Your task to perform on an android device: uninstall "Move to iOS" Image 0: 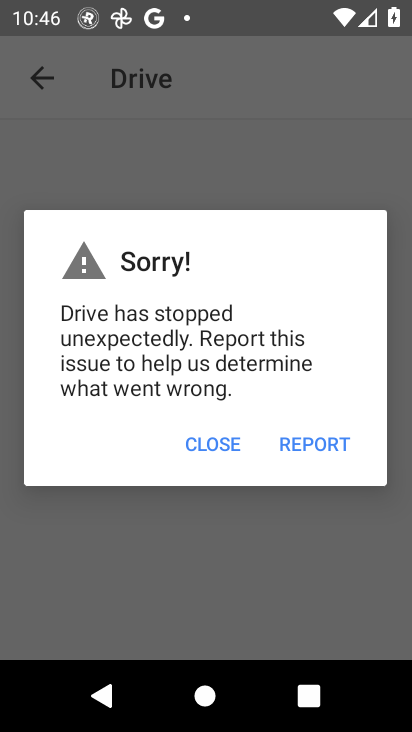
Step 0: click (223, 450)
Your task to perform on an android device: uninstall "Move to iOS" Image 1: 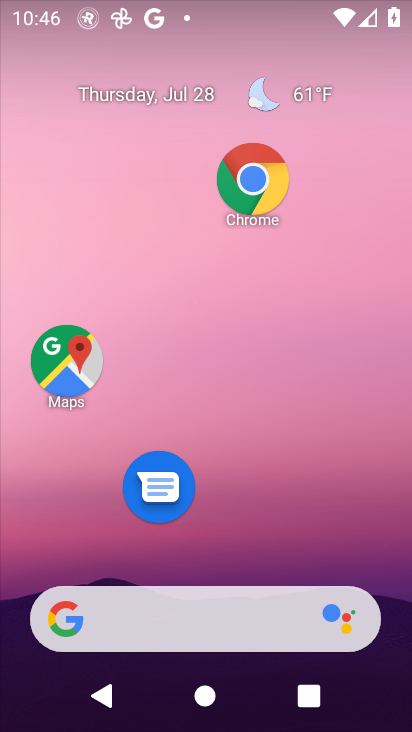
Step 1: press back button
Your task to perform on an android device: uninstall "Move to iOS" Image 2: 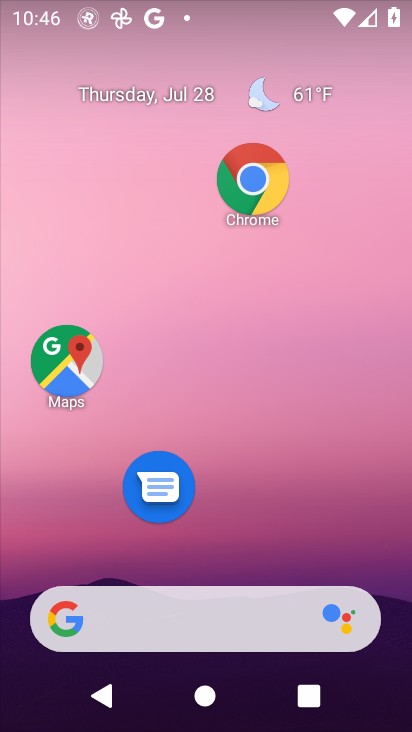
Step 2: drag from (250, 670) to (198, 189)
Your task to perform on an android device: uninstall "Move to iOS" Image 3: 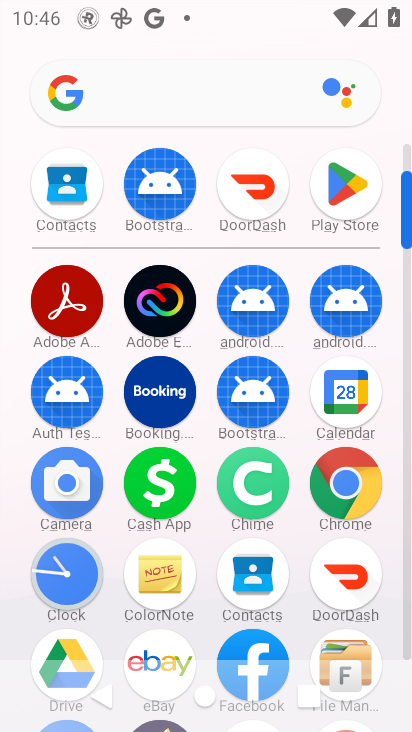
Step 3: drag from (207, 529) to (166, 239)
Your task to perform on an android device: uninstall "Move to iOS" Image 4: 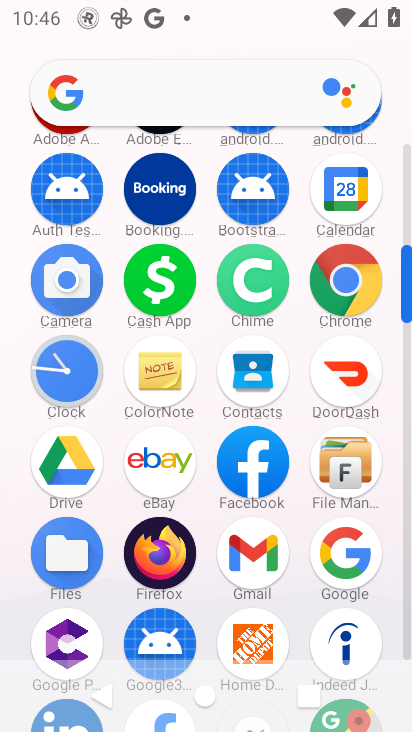
Step 4: drag from (307, 257) to (301, 475)
Your task to perform on an android device: uninstall "Move to iOS" Image 5: 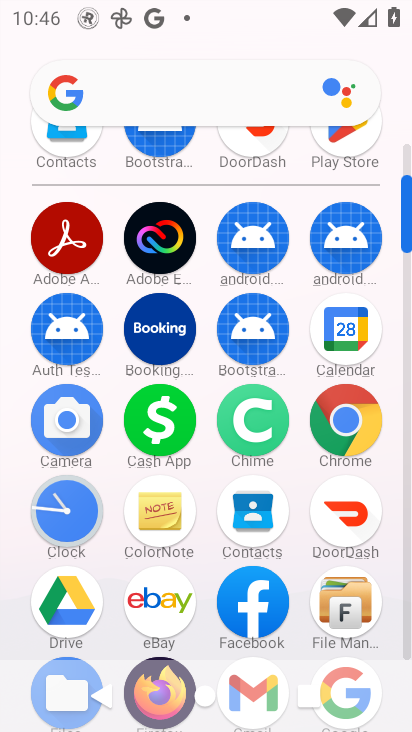
Step 5: drag from (294, 271) to (289, 512)
Your task to perform on an android device: uninstall "Move to iOS" Image 6: 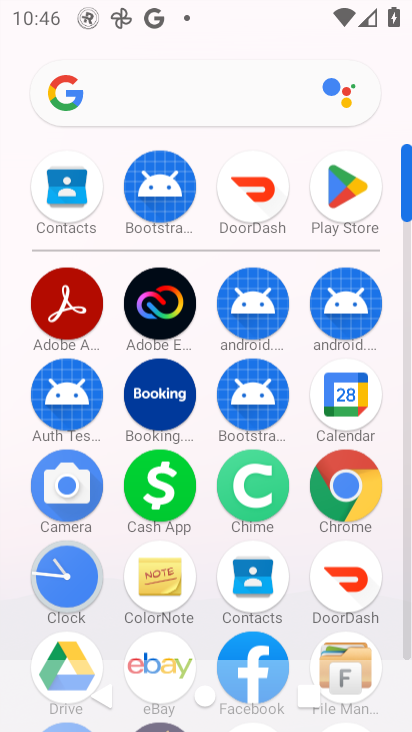
Step 6: drag from (276, 302) to (273, 525)
Your task to perform on an android device: uninstall "Move to iOS" Image 7: 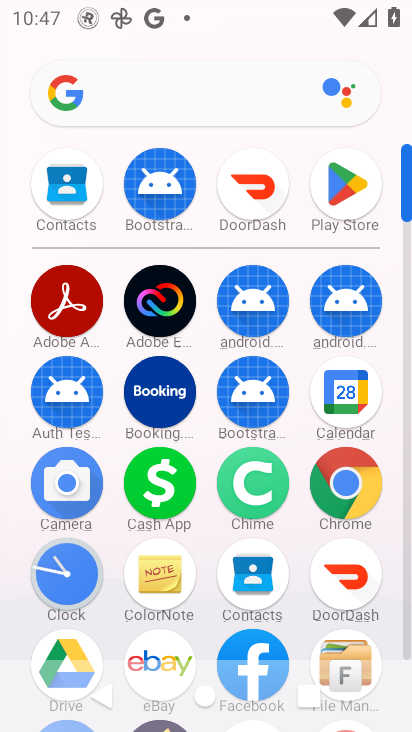
Step 7: click (340, 196)
Your task to perform on an android device: uninstall "Move to iOS" Image 8: 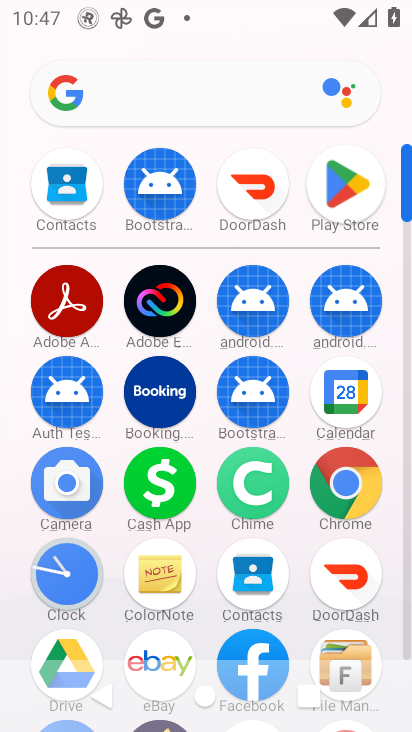
Step 8: click (340, 196)
Your task to perform on an android device: uninstall "Move to iOS" Image 9: 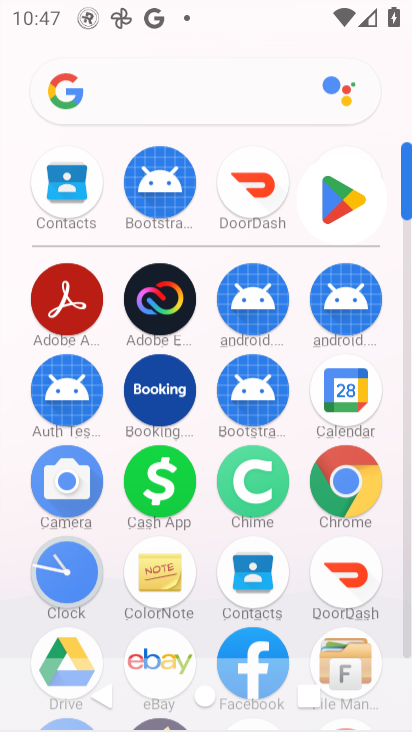
Step 9: click (340, 195)
Your task to perform on an android device: uninstall "Move to iOS" Image 10: 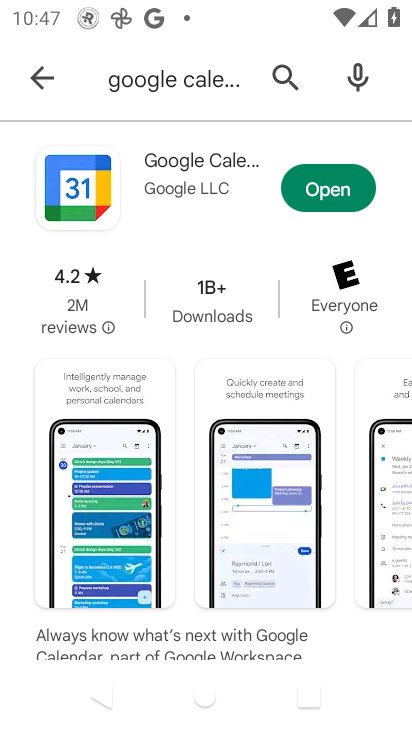
Step 10: click (32, 73)
Your task to perform on an android device: uninstall "Move to iOS" Image 11: 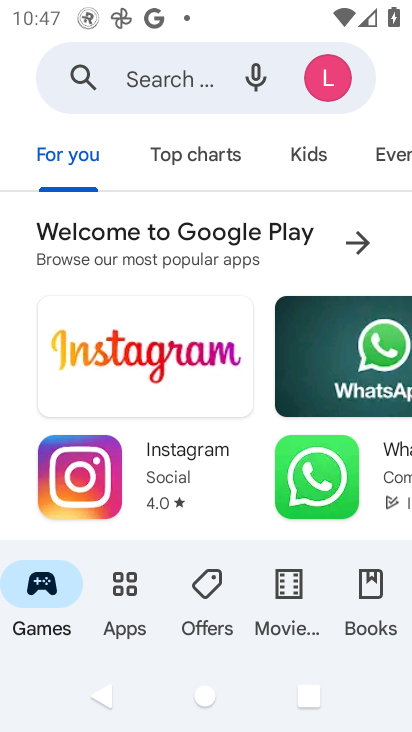
Step 11: click (115, 74)
Your task to perform on an android device: uninstall "Move to iOS" Image 12: 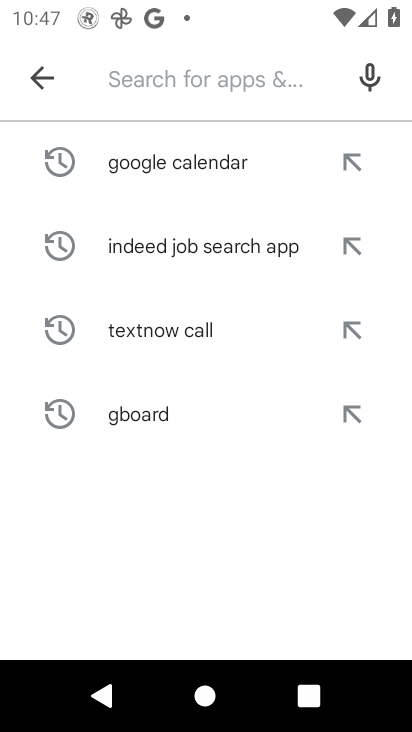
Step 12: type "Move to iOS"
Your task to perform on an android device: uninstall "Move to iOS" Image 13: 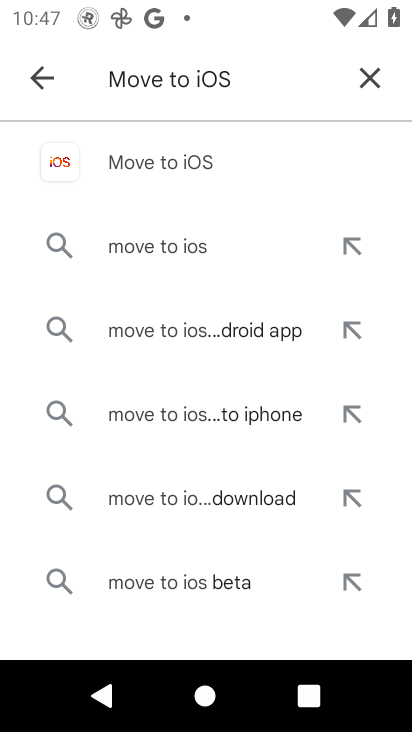
Step 13: click (172, 165)
Your task to perform on an android device: uninstall "Move to iOS" Image 14: 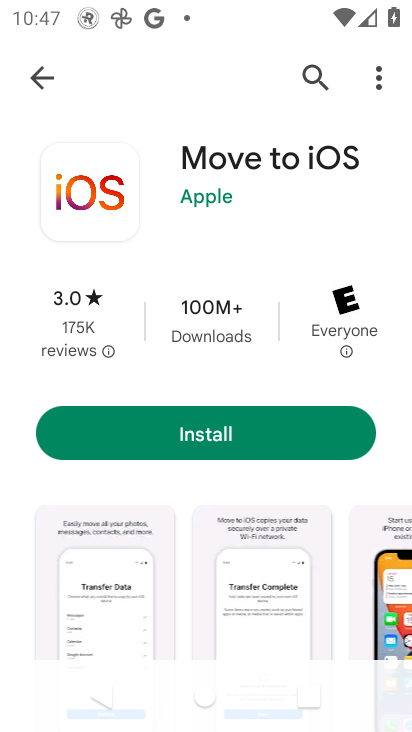
Step 14: task complete